Your task to perform on an android device: Go to Google Image 0: 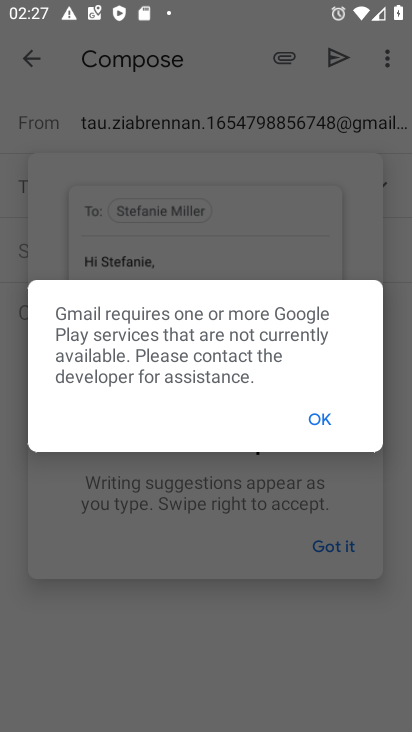
Step 0: press home button
Your task to perform on an android device: Go to Google Image 1: 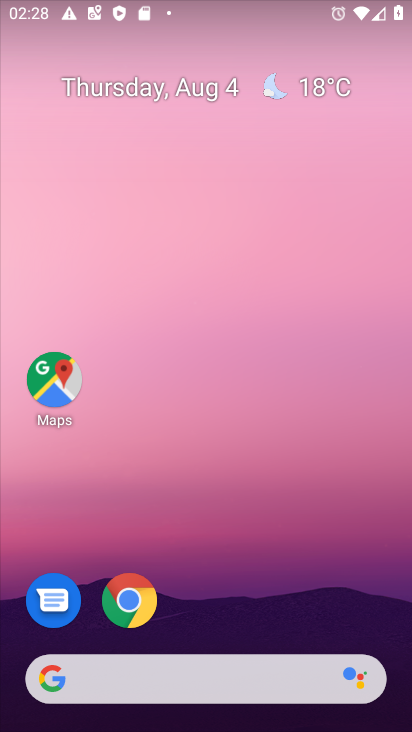
Step 1: drag from (157, 681) to (320, 165)
Your task to perform on an android device: Go to Google Image 2: 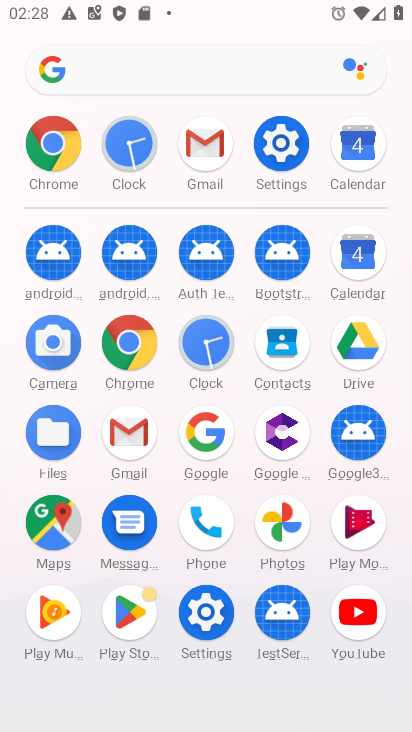
Step 2: click (208, 439)
Your task to perform on an android device: Go to Google Image 3: 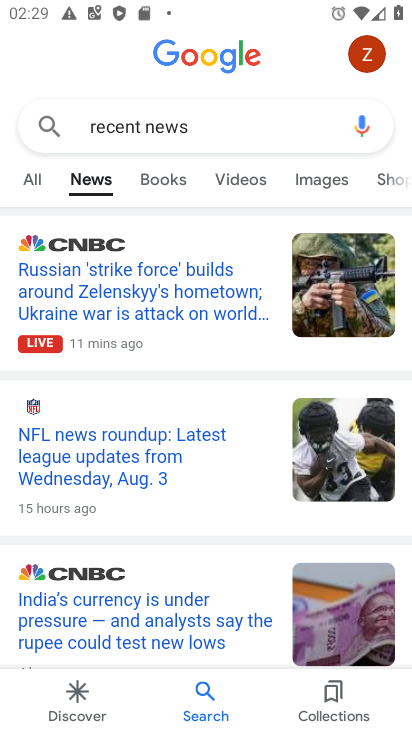
Step 3: task complete